Your task to perform on an android device: install app "Microsoft Excel" Image 0: 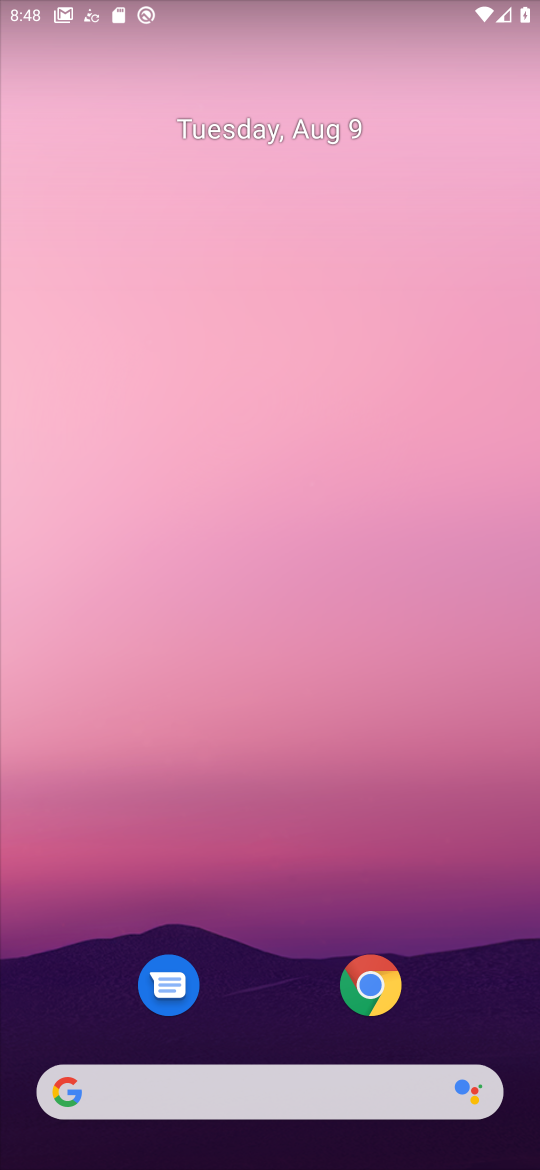
Step 0: drag from (247, 1004) to (367, 22)
Your task to perform on an android device: install app "Microsoft Excel" Image 1: 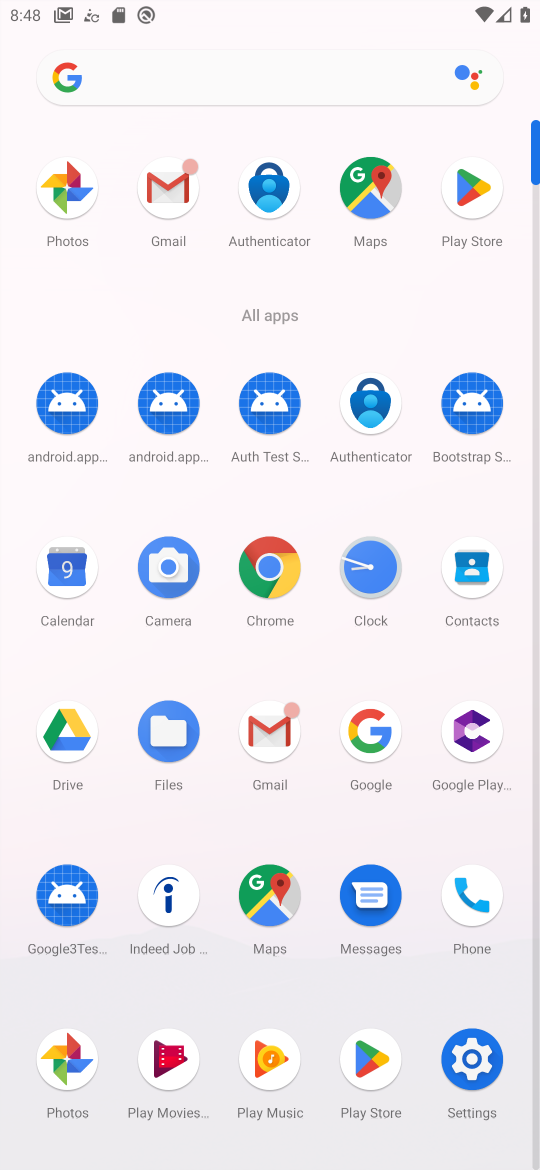
Step 1: click (358, 1072)
Your task to perform on an android device: install app "Microsoft Excel" Image 2: 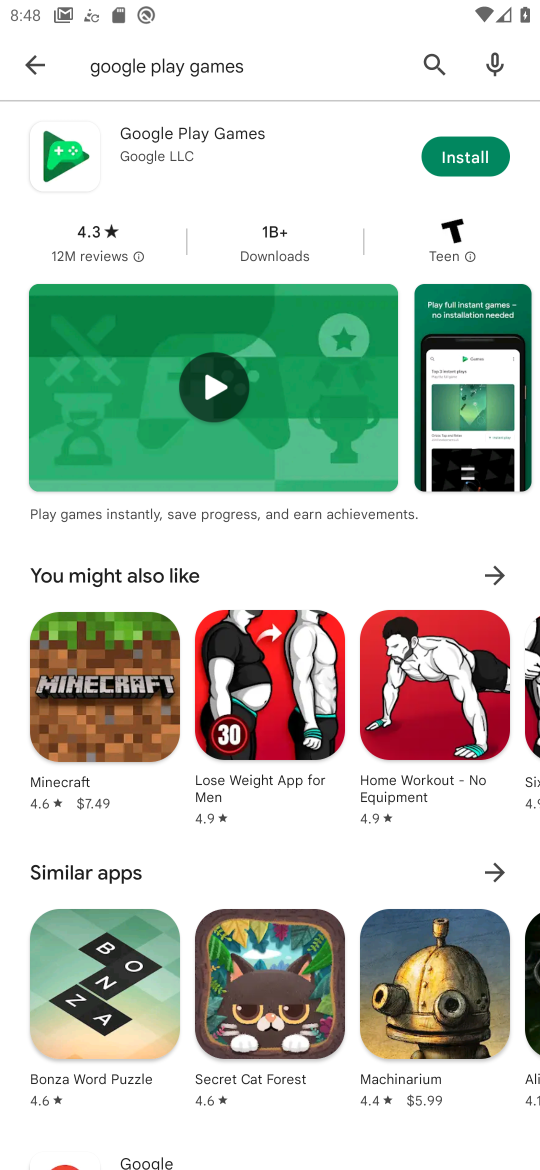
Step 2: click (173, 70)
Your task to perform on an android device: install app "Microsoft Excel" Image 3: 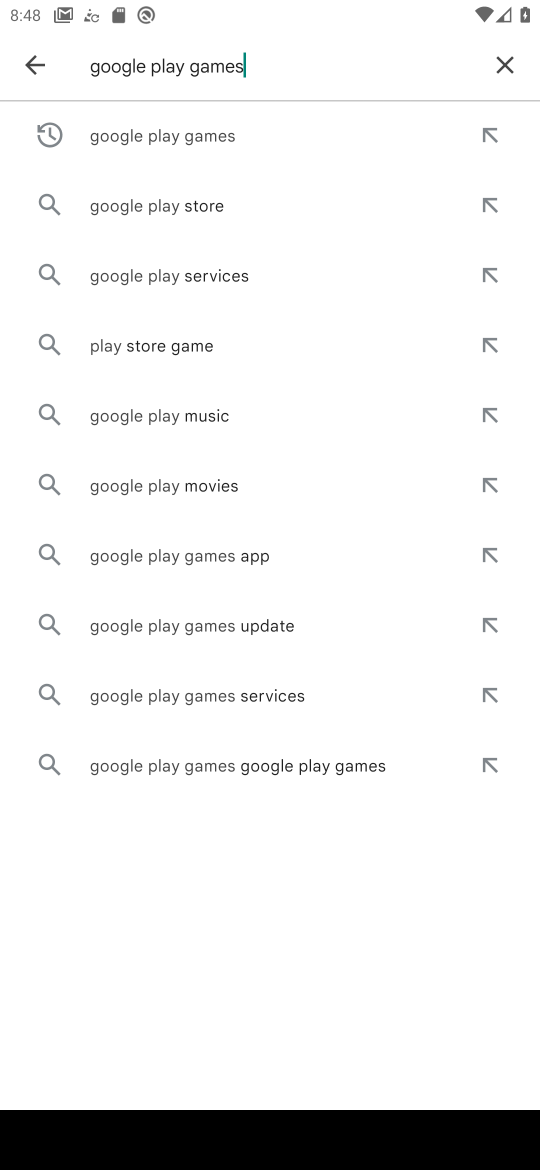
Step 3: click (499, 54)
Your task to perform on an android device: install app "Microsoft Excel" Image 4: 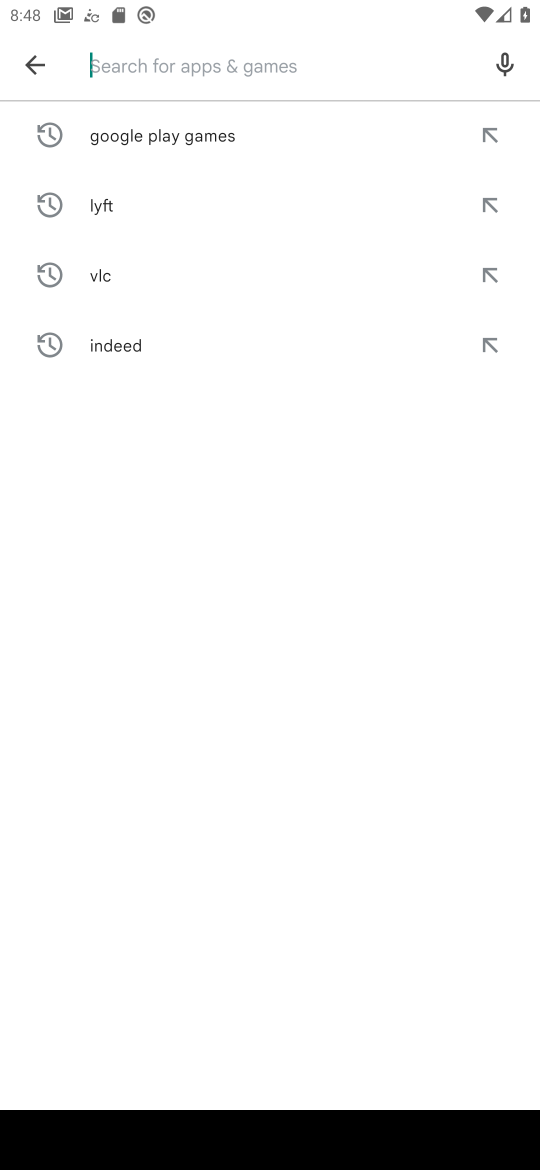
Step 4: type "microsoft excel"
Your task to perform on an android device: install app "Microsoft Excel" Image 5: 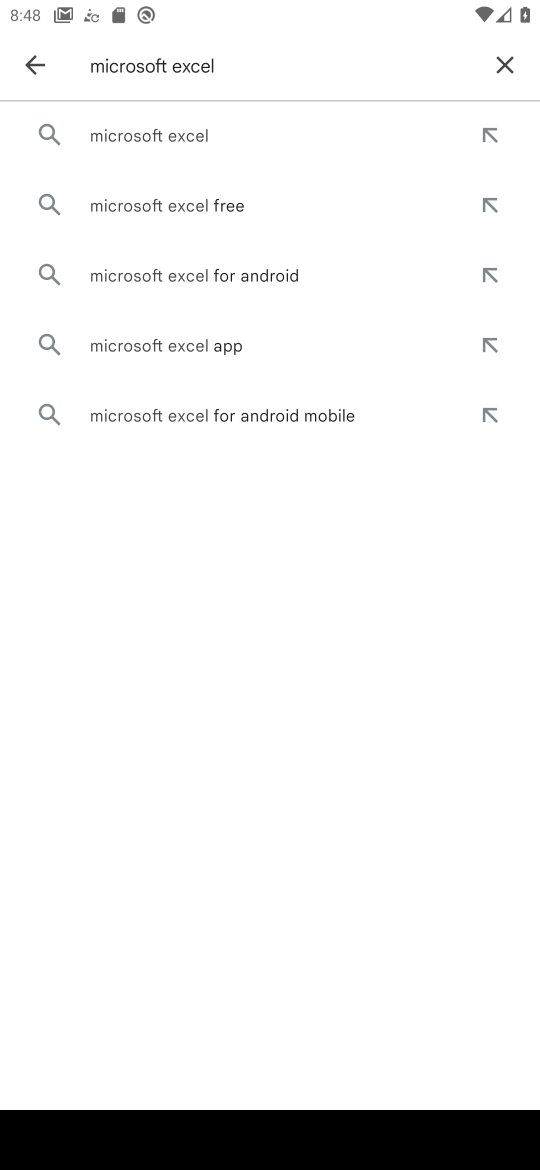
Step 5: click (182, 127)
Your task to perform on an android device: install app "Microsoft Excel" Image 6: 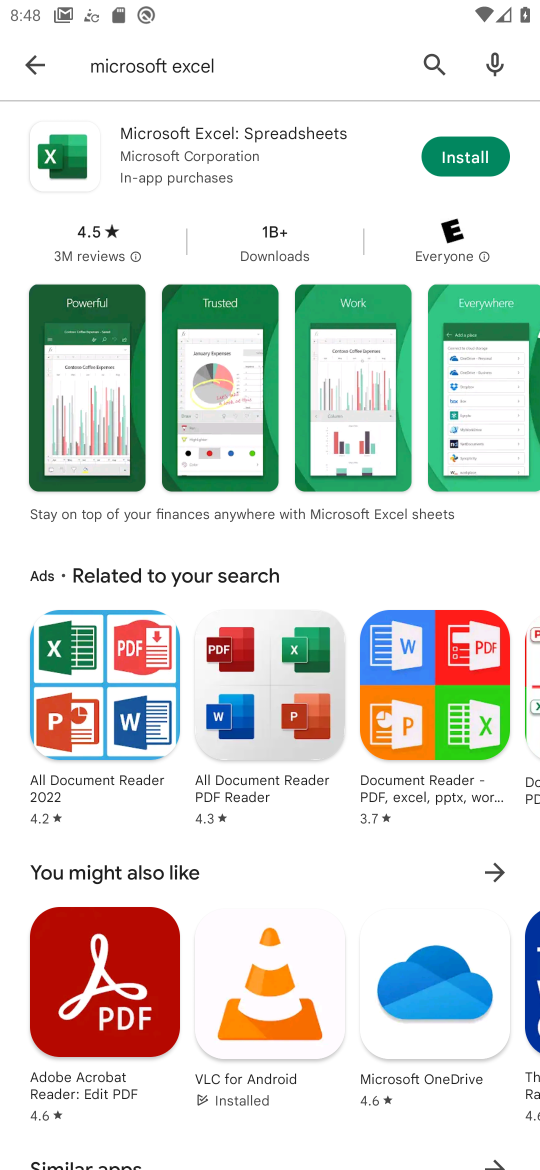
Step 6: click (477, 161)
Your task to perform on an android device: install app "Microsoft Excel" Image 7: 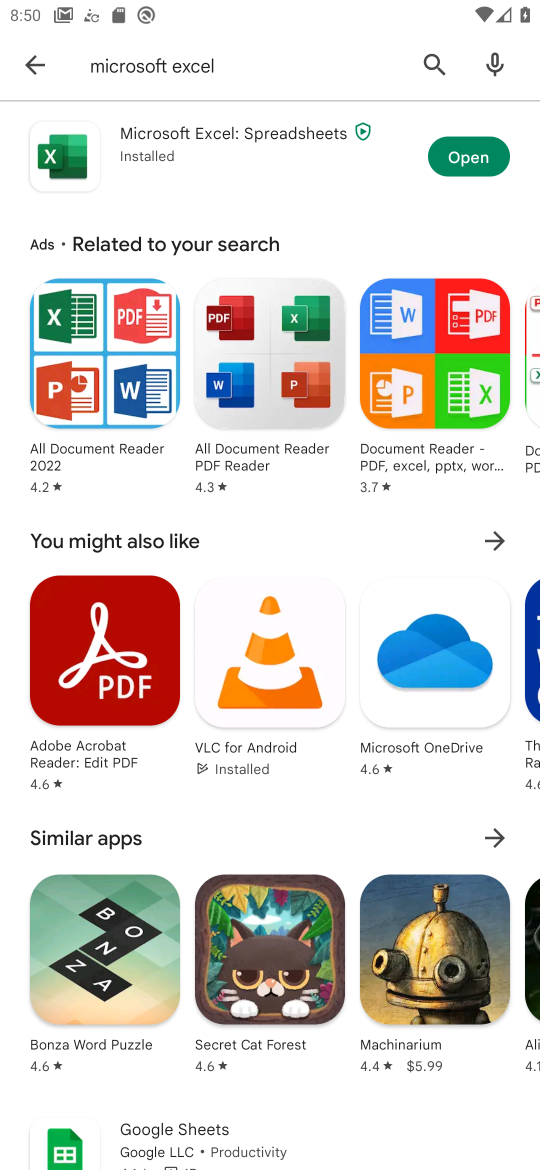
Step 7: task complete